Your task to perform on an android device: change keyboard looks Image 0: 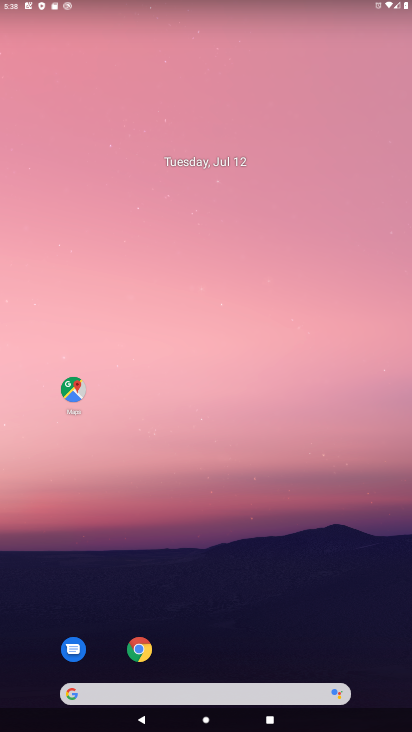
Step 0: drag from (182, 698) to (270, 156)
Your task to perform on an android device: change keyboard looks Image 1: 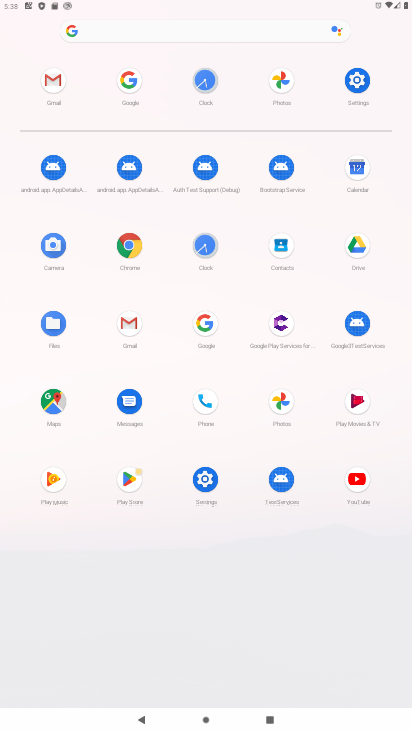
Step 1: click (358, 79)
Your task to perform on an android device: change keyboard looks Image 2: 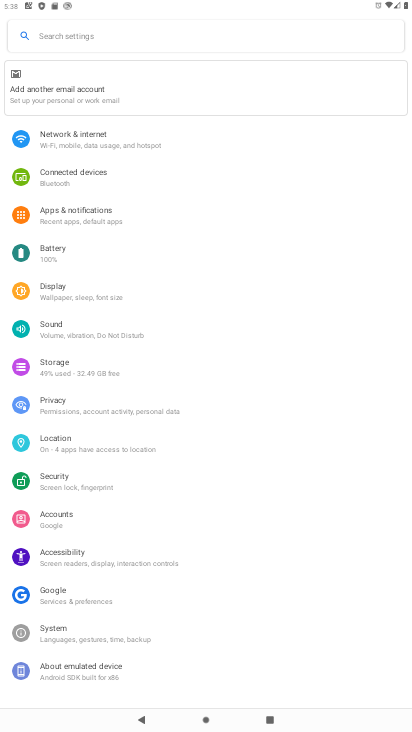
Step 2: click (59, 631)
Your task to perform on an android device: change keyboard looks Image 3: 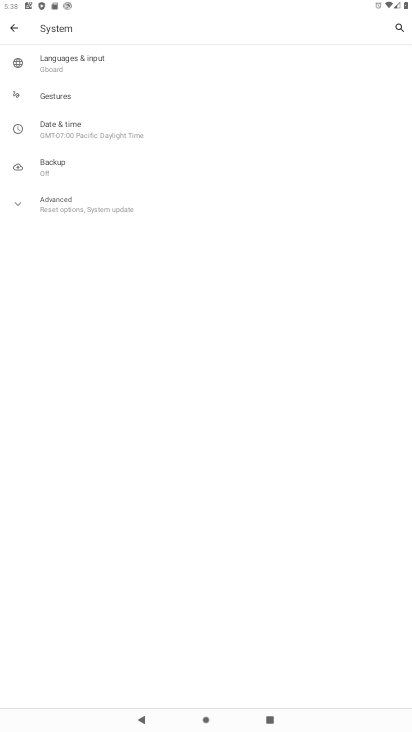
Step 3: click (61, 70)
Your task to perform on an android device: change keyboard looks Image 4: 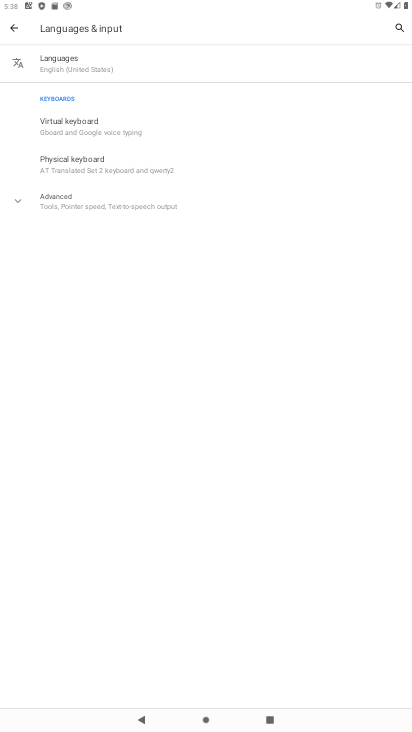
Step 4: click (87, 130)
Your task to perform on an android device: change keyboard looks Image 5: 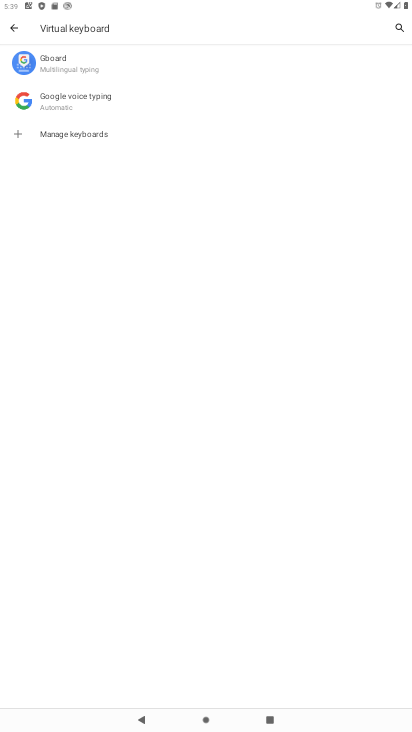
Step 5: click (57, 70)
Your task to perform on an android device: change keyboard looks Image 6: 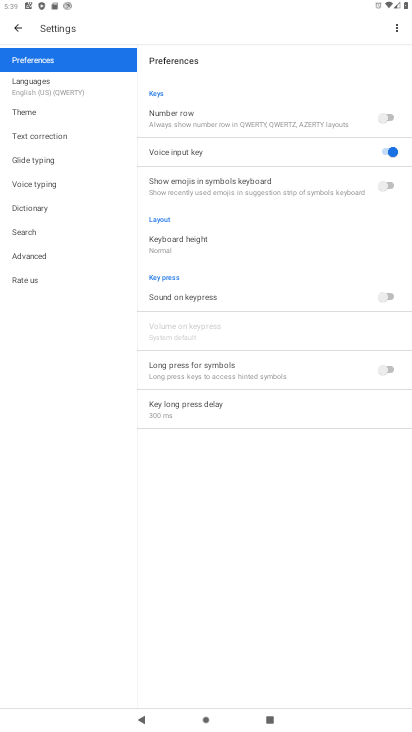
Step 6: click (37, 114)
Your task to perform on an android device: change keyboard looks Image 7: 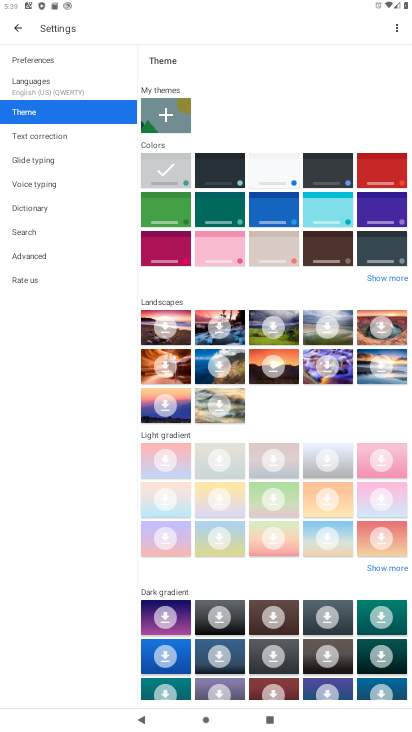
Step 7: click (330, 169)
Your task to perform on an android device: change keyboard looks Image 8: 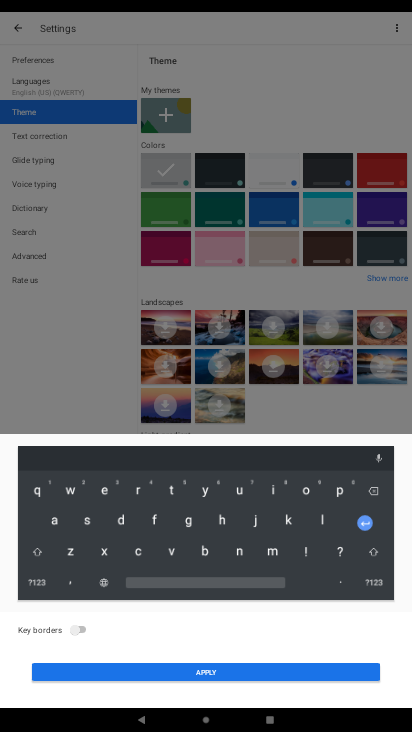
Step 8: click (72, 626)
Your task to perform on an android device: change keyboard looks Image 9: 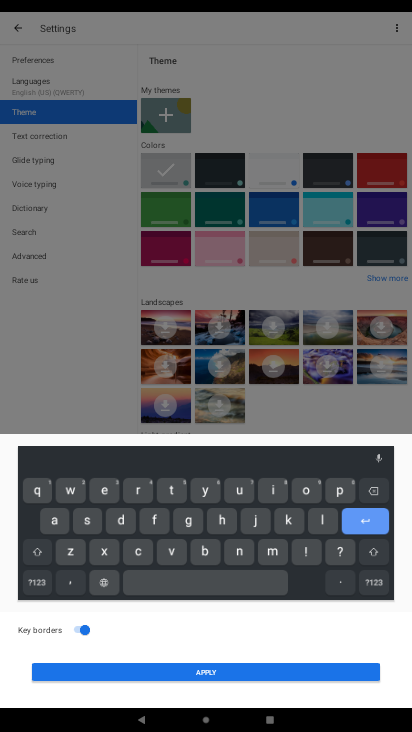
Step 9: click (203, 669)
Your task to perform on an android device: change keyboard looks Image 10: 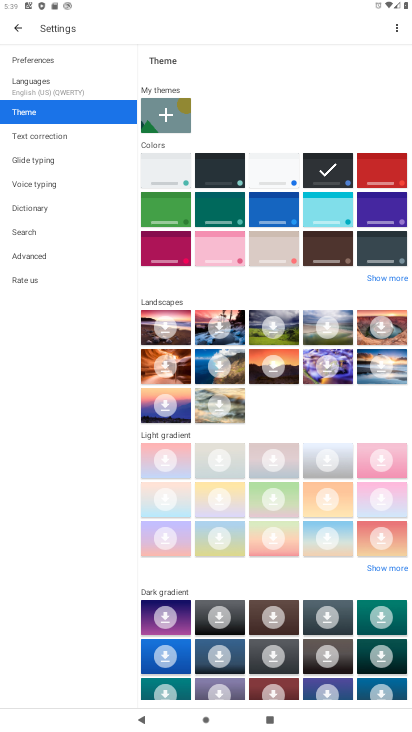
Step 10: task complete